Your task to perform on an android device: Open the stopwatch Image 0: 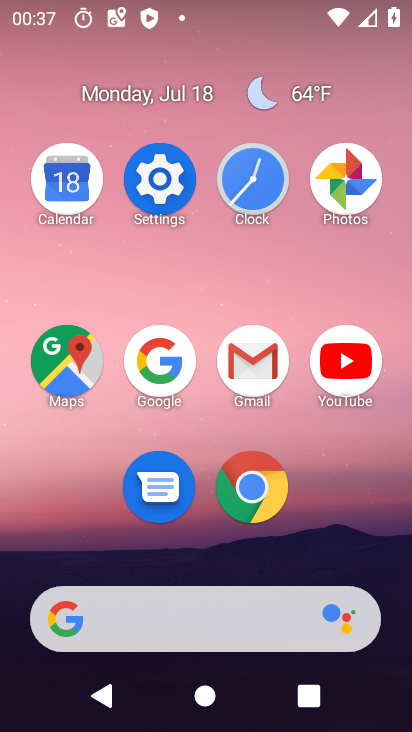
Step 0: click (253, 177)
Your task to perform on an android device: Open the stopwatch Image 1: 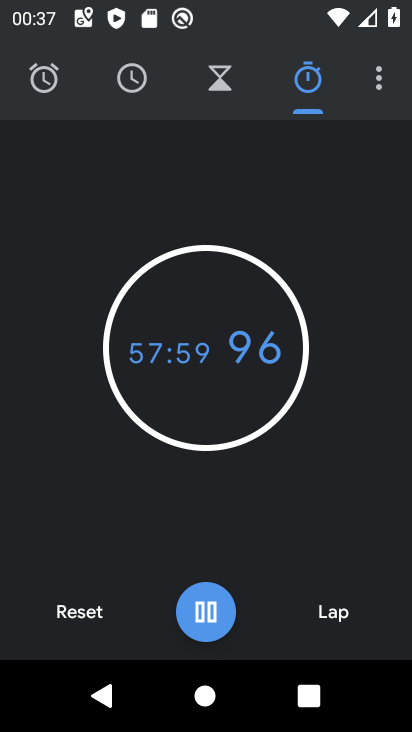
Step 1: task complete